Your task to perform on an android device: Go to eBay Image 0: 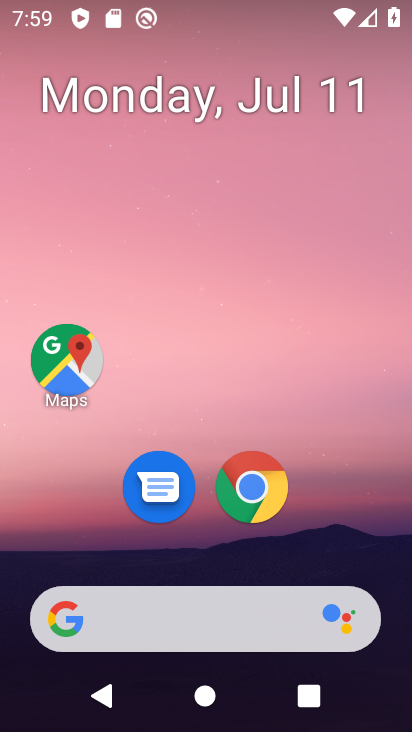
Step 0: click (252, 494)
Your task to perform on an android device: Go to eBay Image 1: 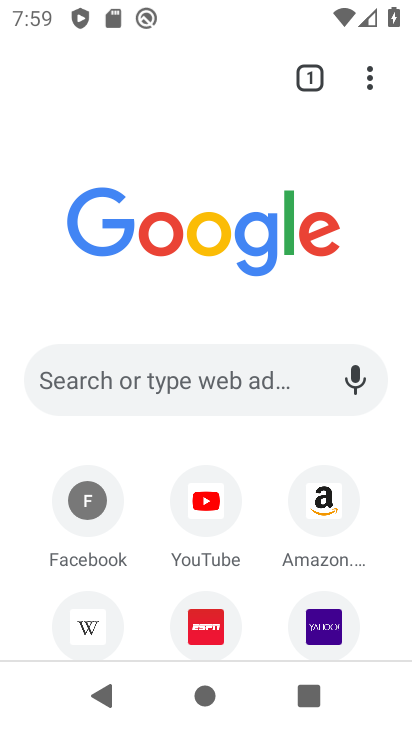
Step 1: drag from (225, 608) to (246, 568)
Your task to perform on an android device: Go to eBay Image 2: 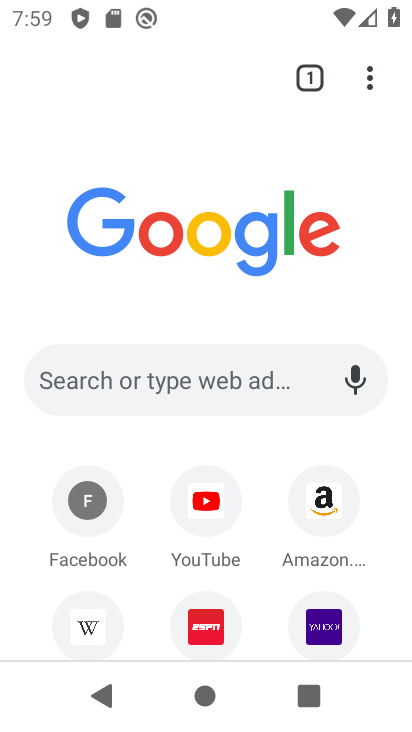
Step 2: click (129, 360)
Your task to perform on an android device: Go to eBay Image 3: 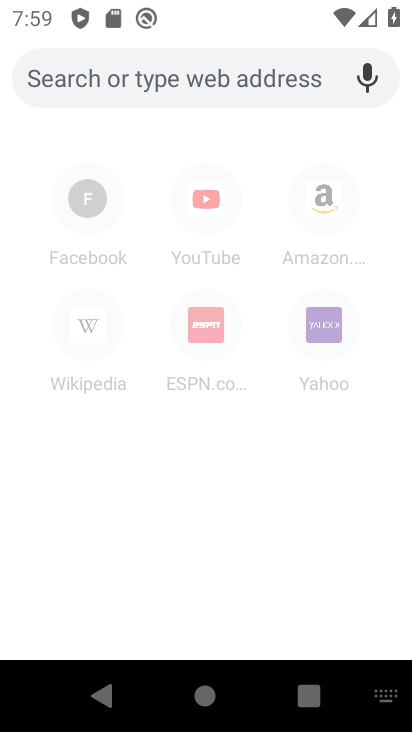
Step 3: type "ebay"
Your task to perform on an android device: Go to eBay Image 4: 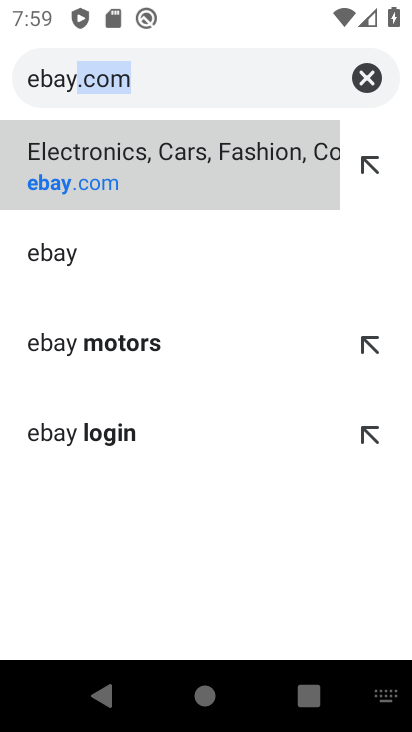
Step 4: click (254, 166)
Your task to perform on an android device: Go to eBay Image 5: 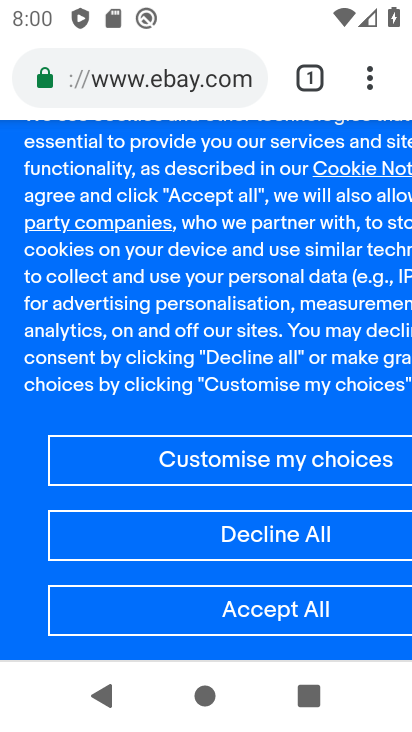
Step 5: task complete